Your task to perform on an android device: toggle improve location accuracy Image 0: 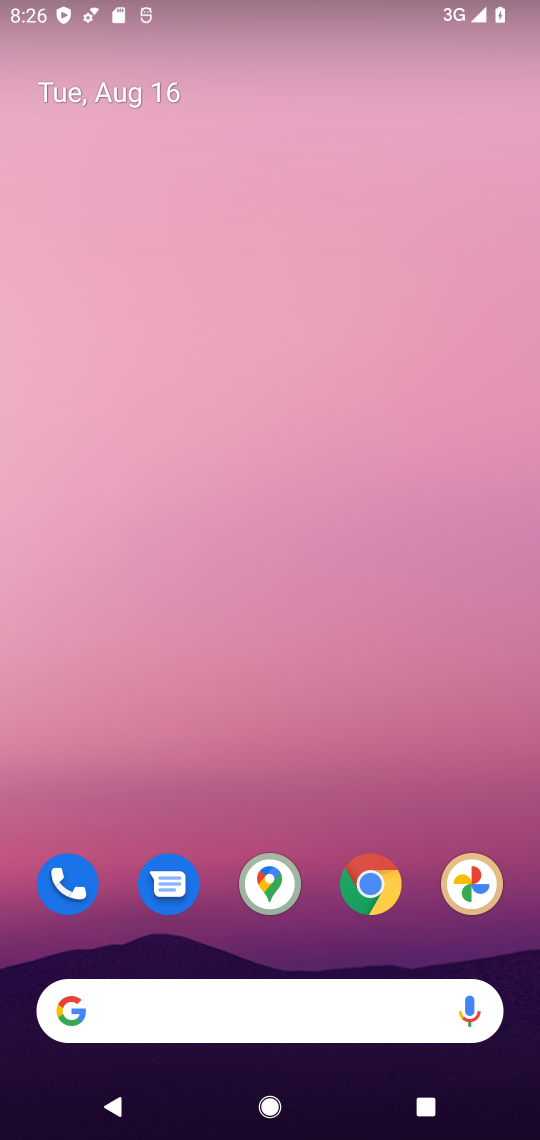
Step 0: drag from (422, 943) to (392, 129)
Your task to perform on an android device: toggle improve location accuracy Image 1: 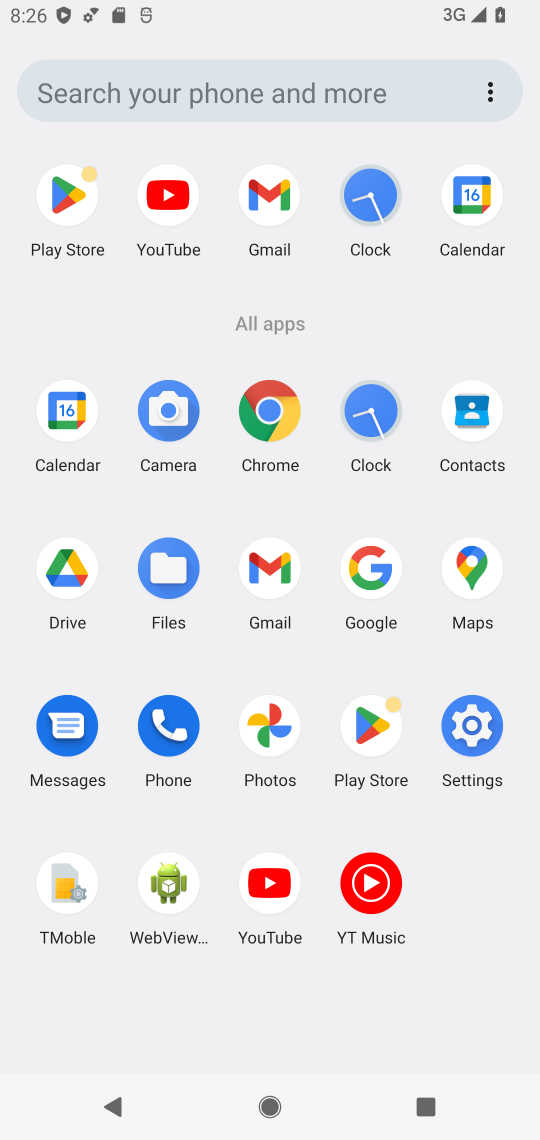
Step 1: click (470, 723)
Your task to perform on an android device: toggle improve location accuracy Image 2: 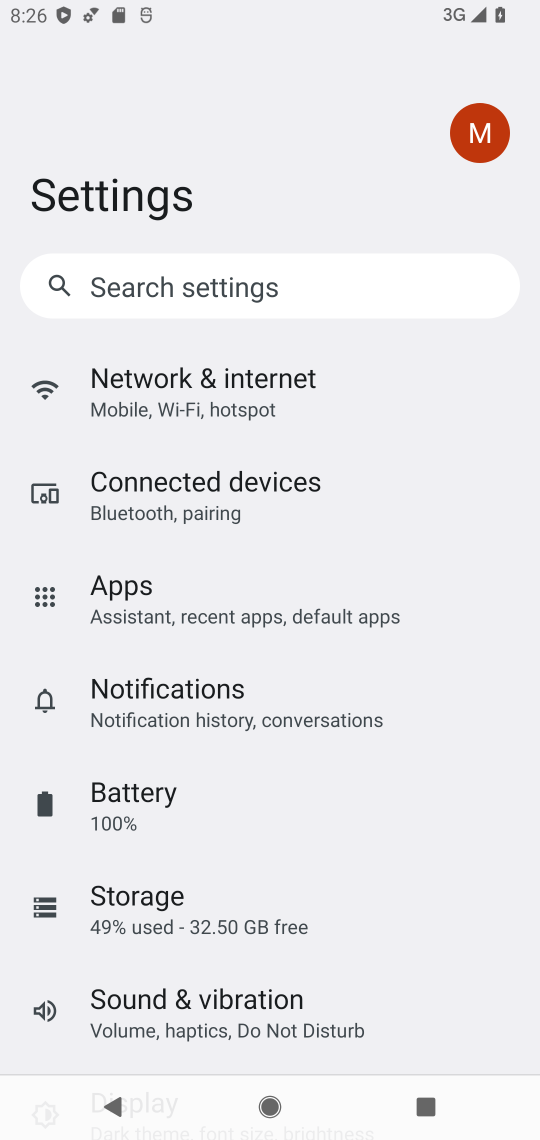
Step 2: drag from (401, 936) to (375, 423)
Your task to perform on an android device: toggle improve location accuracy Image 3: 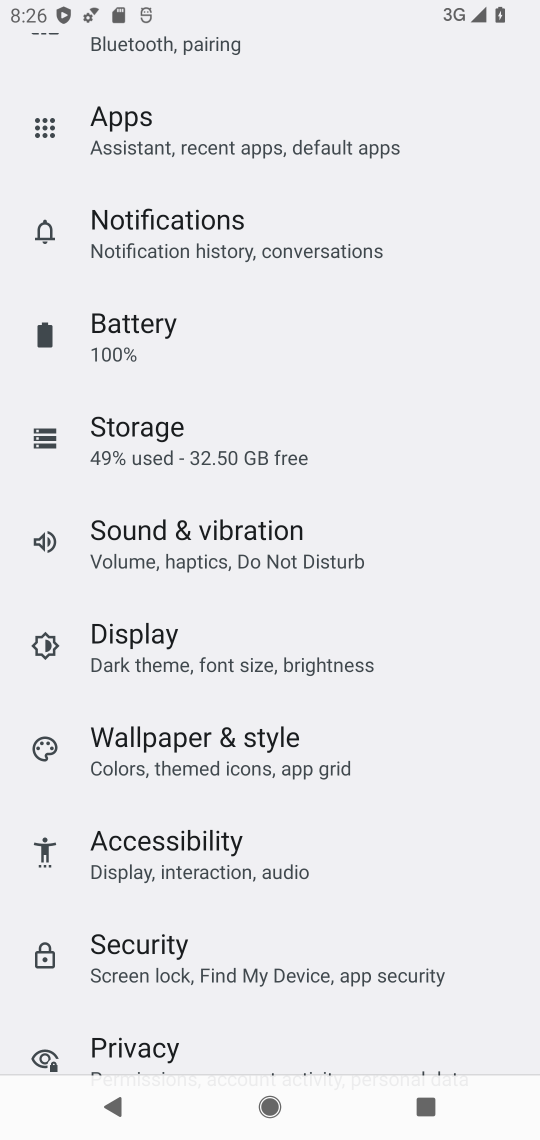
Step 3: drag from (322, 979) to (351, 250)
Your task to perform on an android device: toggle improve location accuracy Image 4: 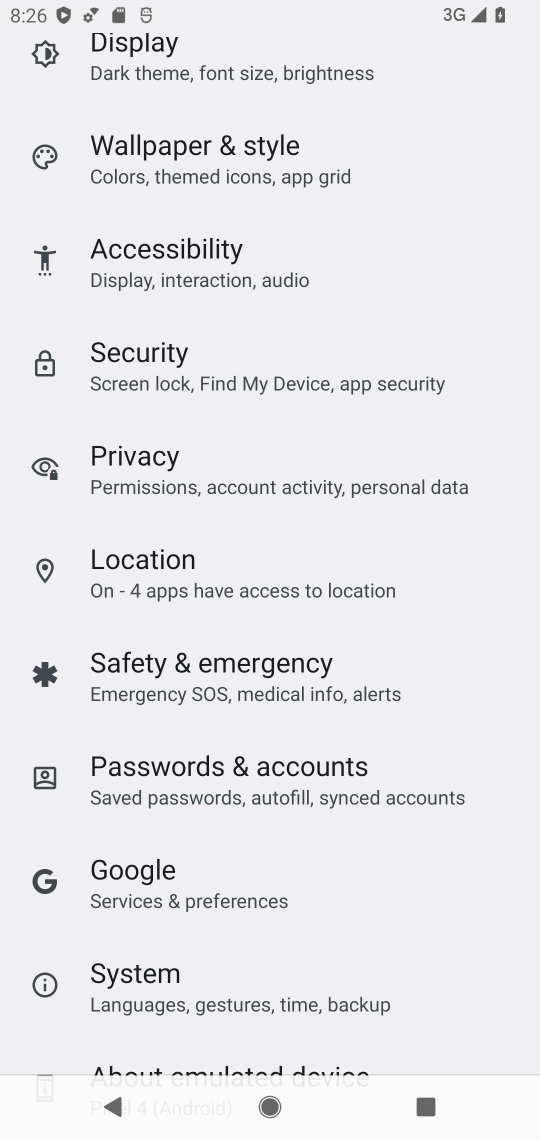
Step 4: click (159, 577)
Your task to perform on an android device: toggle improve location accuracy Image 5: 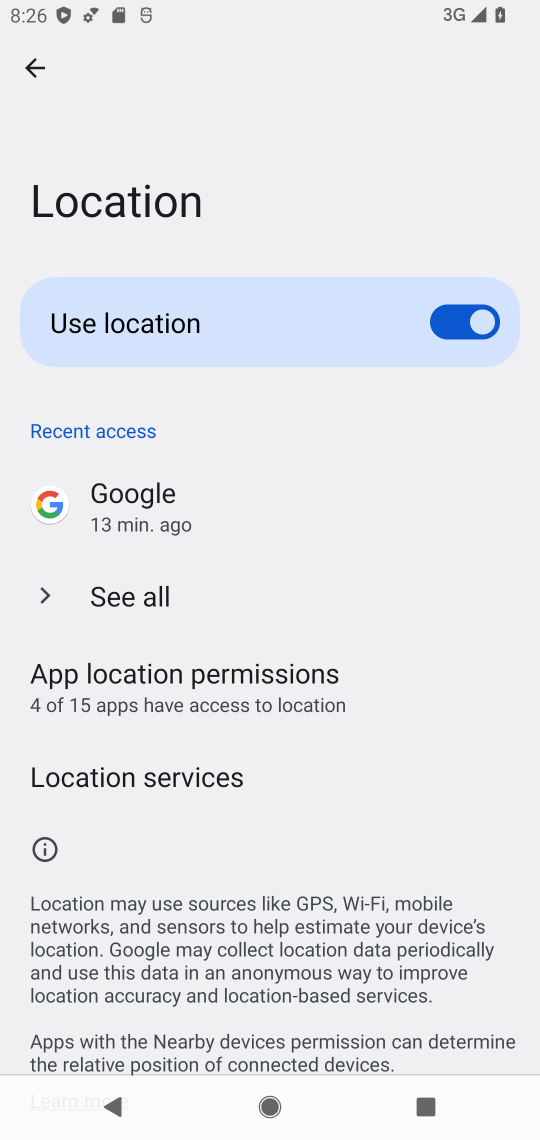
Step 5: drag from (334, 796) to (329, 358)
Your task to perform on an android device: toggle improve location accuracy Image 6: 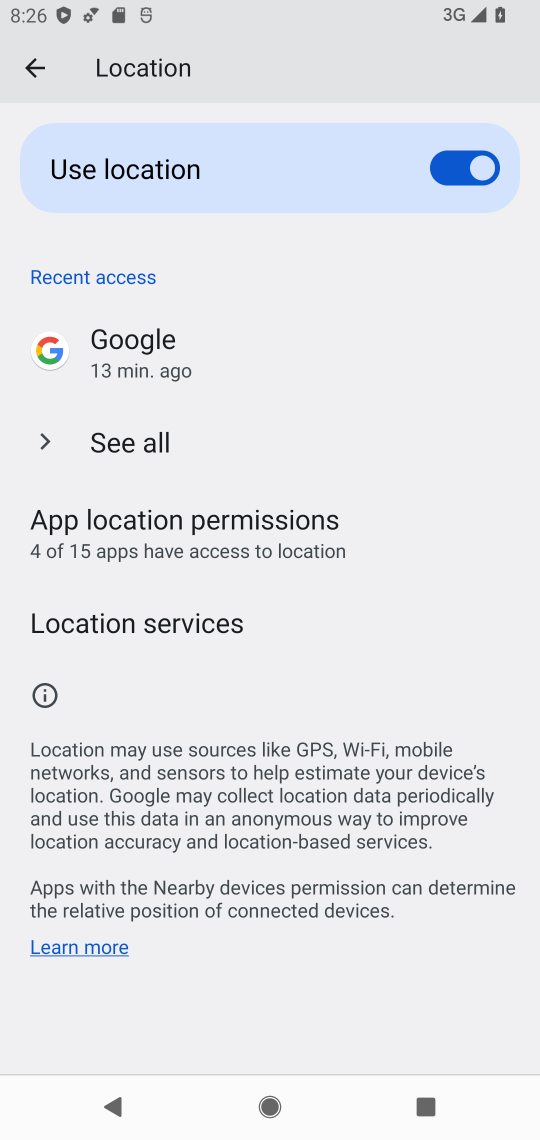
Step 6: click (154, 611)
Your task to perform on an android device: toggle improve location accuracy Image 7: 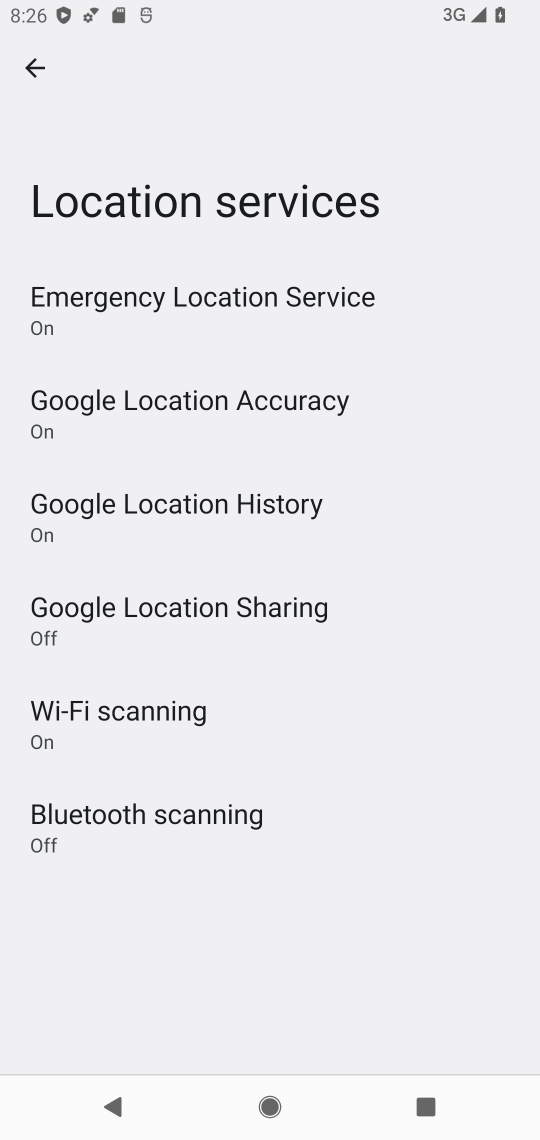
Step 7: click (175, 404)
Your task to perform on an android device: toggle improve location accuracy Image 8: 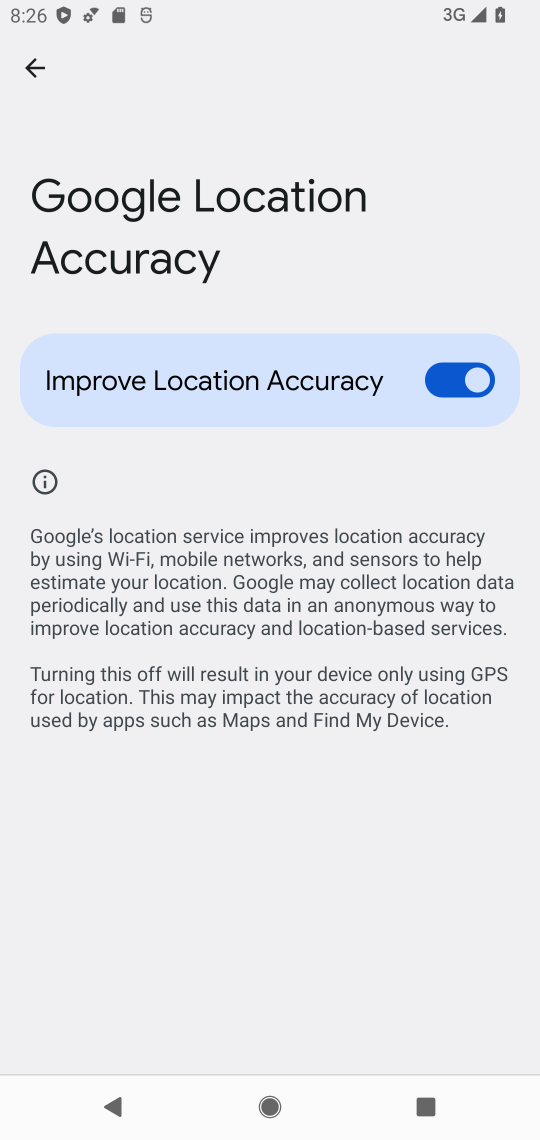
Step 8: click (437, 384)
Your task to perform on an android device: toggle improve location accuracy Image 9: 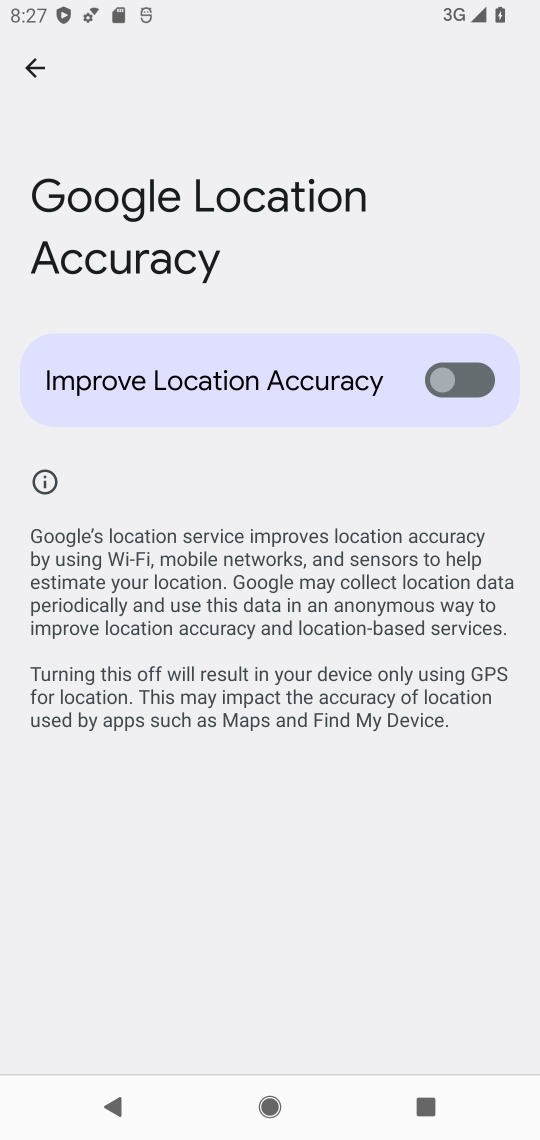
Step 9: task complete